Your task to perform on an android device: choose inbox layout in the gmail app Image 0: 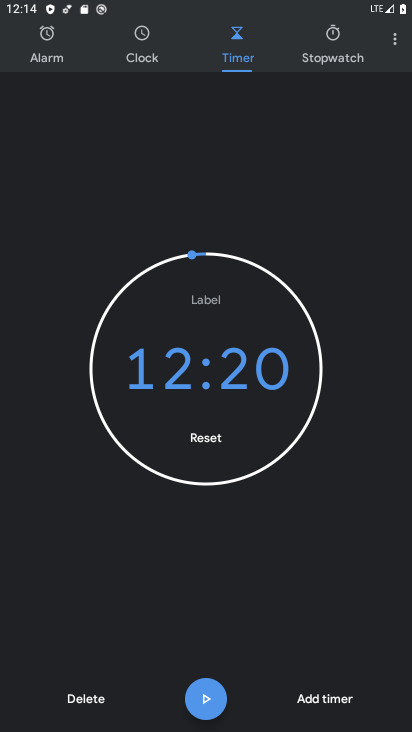
Step 0: press home button
Your task to perform on an android device: choose inbox layout in the gmail app Image 1: 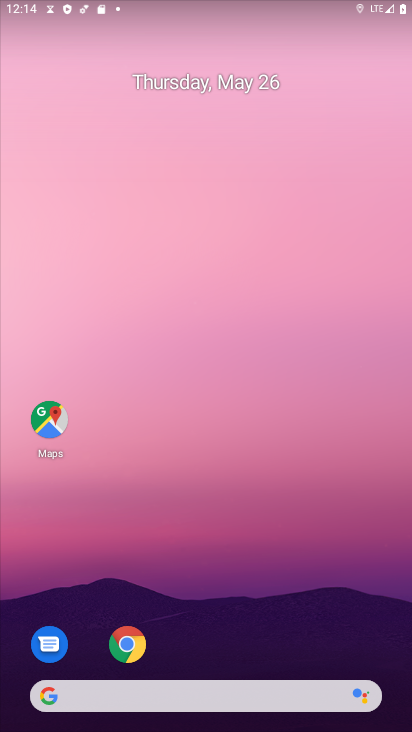
Step 1: drag from (246, 605) to (226, 142)
Your task to perform on an android device: choose inbox layout in the gmail app Image 2: 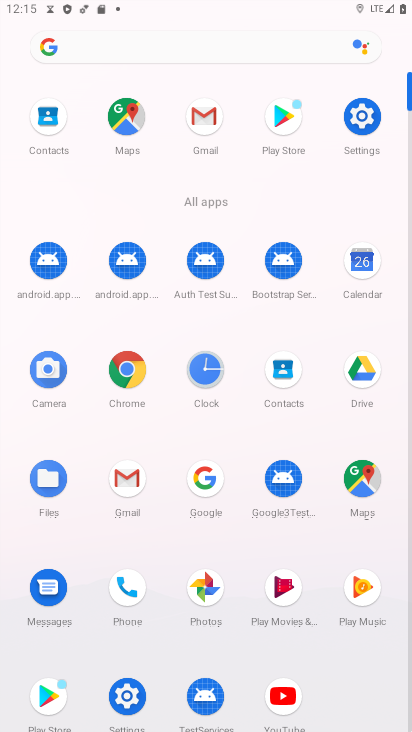
Step 2: click (201, 114)
Your task to perform on an android device: choose inbox layout in the gmail app Image 3: 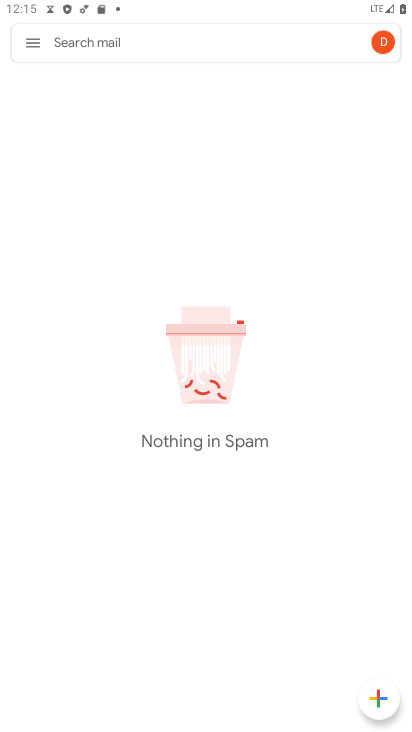
Step 3: click (34, 42)
Your task to perform on an android device: choose inbox layout in the gmail app Image 4: 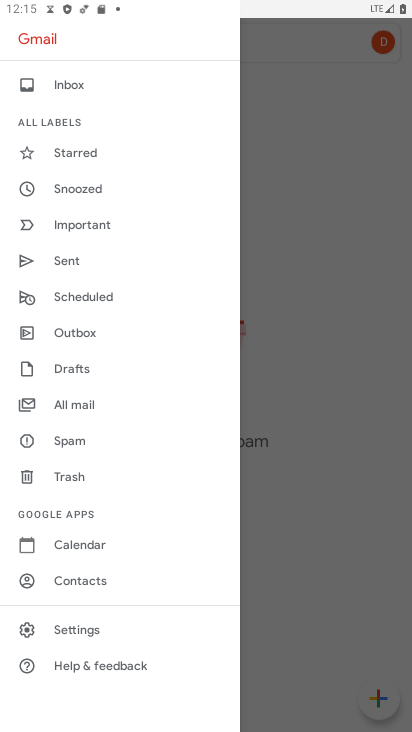
Step 4: click (77, 633)
Your task to perform on an android device: choose inbox layout in the gmail app Image 5: 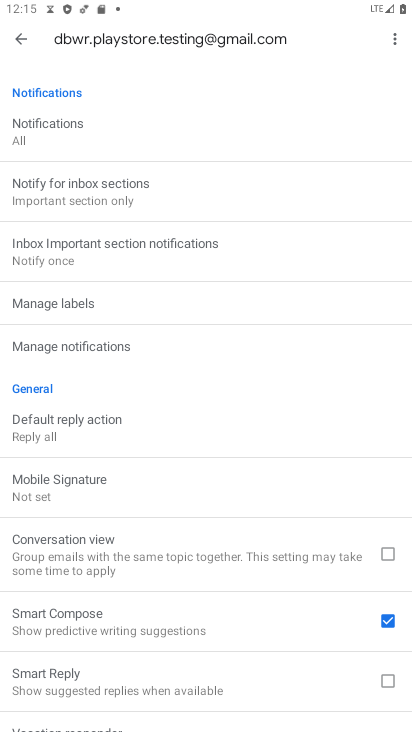
Step 5: drag from (104, 148) to (93, 242)
Your task to perform on an android device: choose inbox layout in the gmail app Image 6: 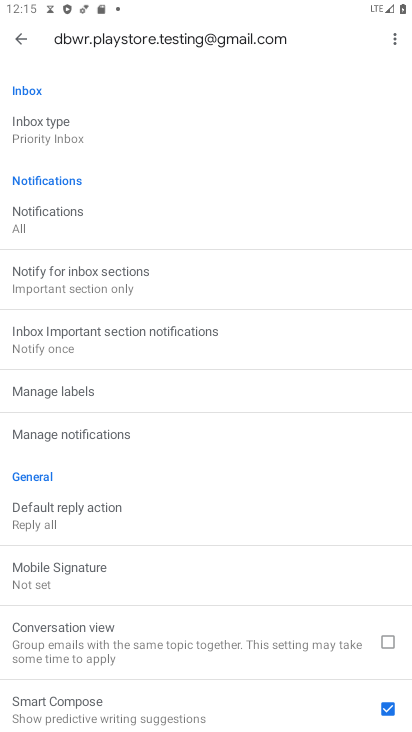
Step 6: click (63, 137)
Your task to perform on an android device: choose inbox layout in the gmail app Image 7: 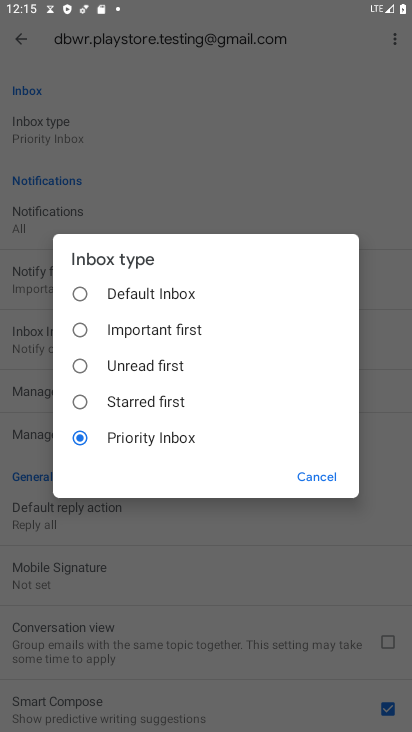
Step 7: click (67, 401)
Your task to perform on an android device: choose inbox layout in the gmail app Image 8: 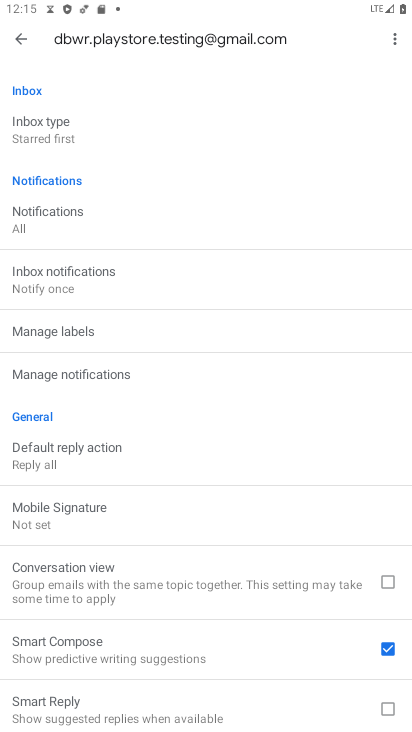
Step 8: task complete